Your task to perform on an android device: Go to wifi settings Image 0: 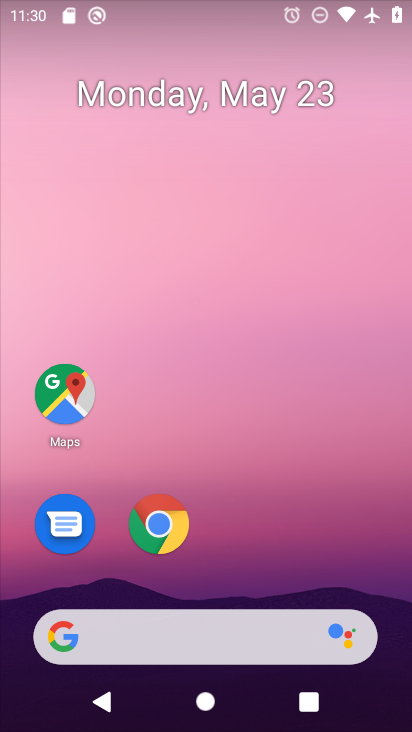
Step 0: drag from (214, 583) to (264, 160)
Your task to perform on an android device: Go to wifi settings Image 1: 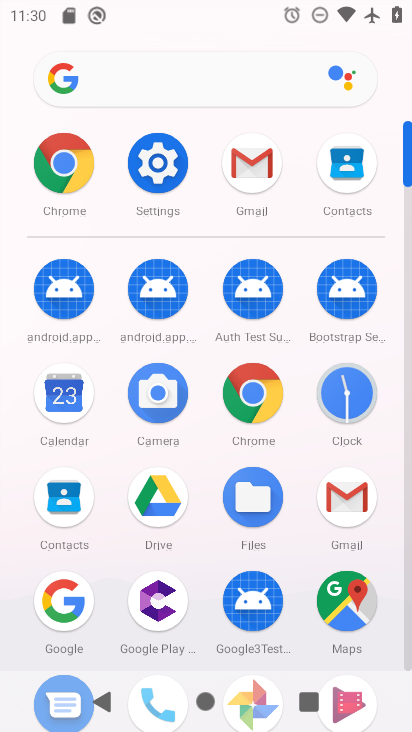
Step 1: click (149, 167)
Your task to perform on an android device: Go to wifi settings Image 2: 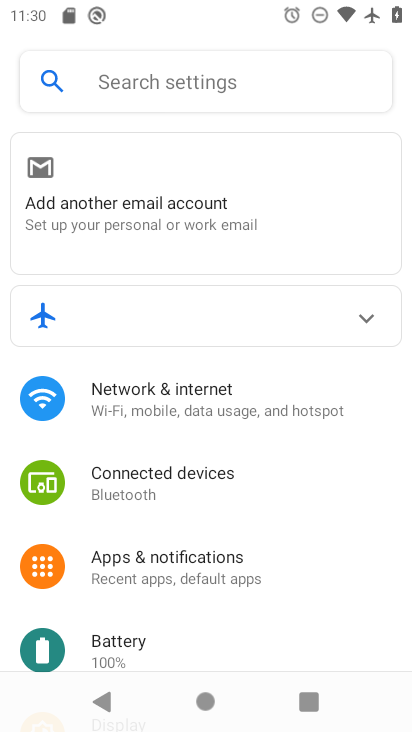
Step 2: click (188, 371)
Your task to perform on an android device: Go to wifi settings Image 3: 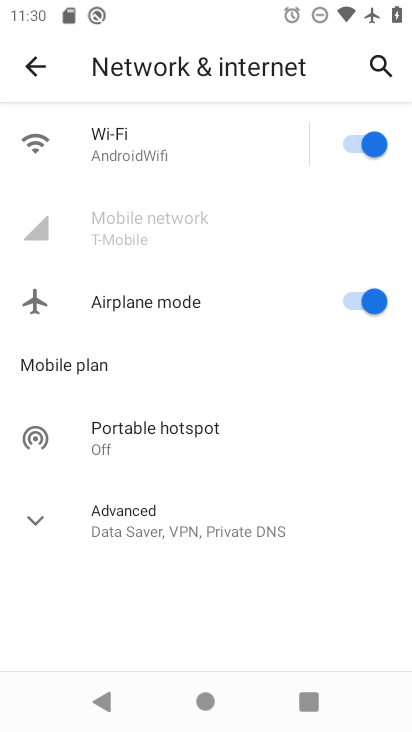
Step 3: click (189, 134)
Your task to perform on an android device: Go to wifi settings Image 4: 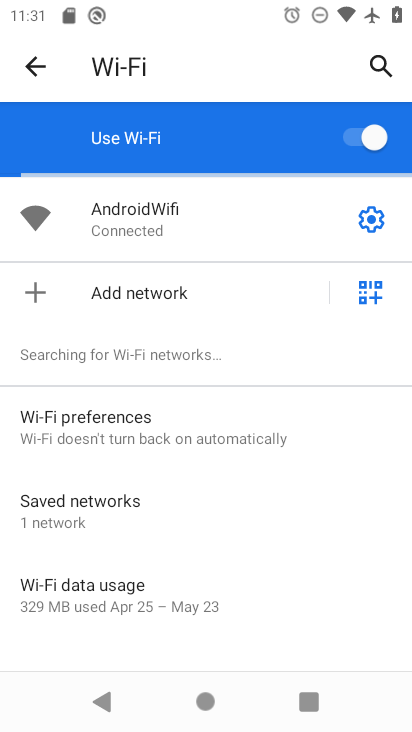
Step 4: task complete